Your task to perform on an android device: Go to accessibility settings Image 0: 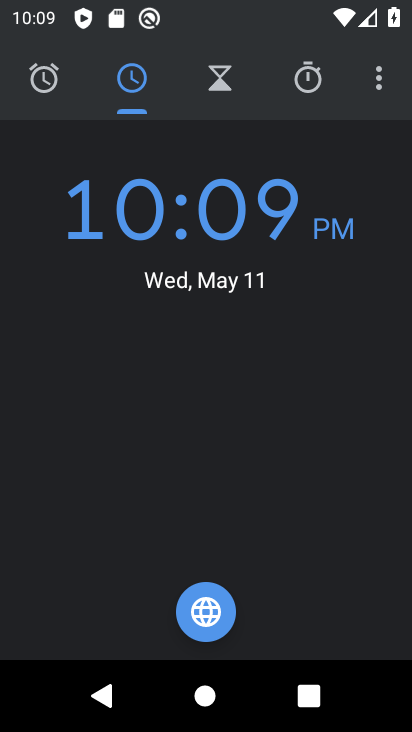
Step 0: press back button
Your task to perform on an android device: Go to accessibility settings Image 1: 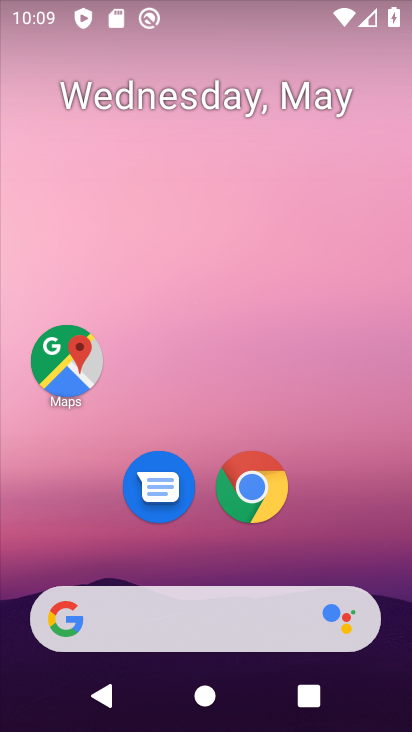
Step 1: drag from (379, 534) to (286, 16)
Your task to perform on an android device: Go to accessibility settings Image 2: 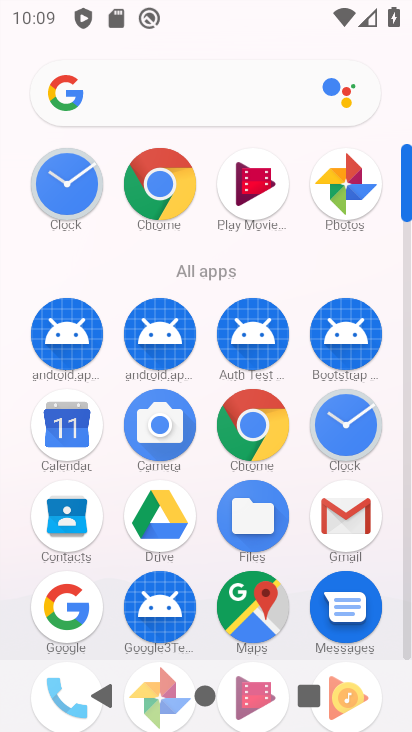
Step 2: drag from (17, 548) to (22, 245)
Your task to perform on an android device: Go to accessibility settings Image 3: 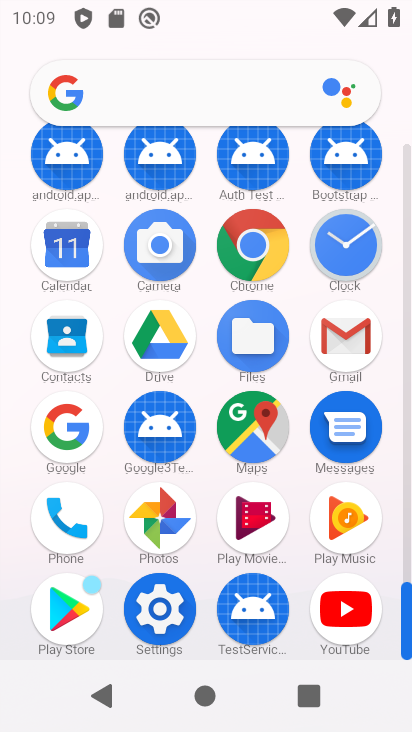
Step 3: click (162, 611)
Your task to perform on an android device: Go to accessibility settings Image 4: 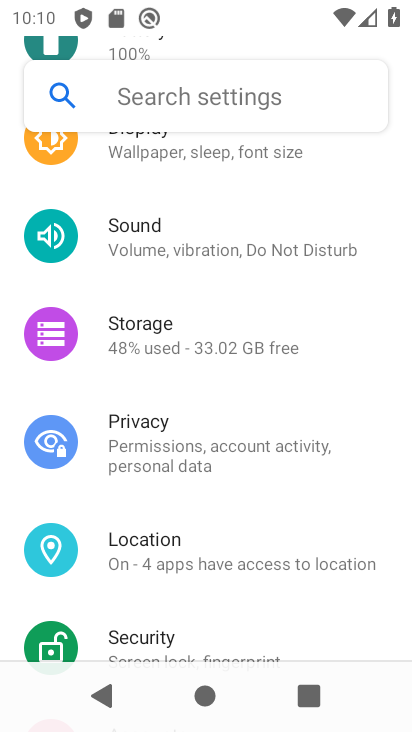
Step 4: drag from (320, 514) to (296, 168)
Your task to perform on an android device: Go to accessibility settings Image 5: 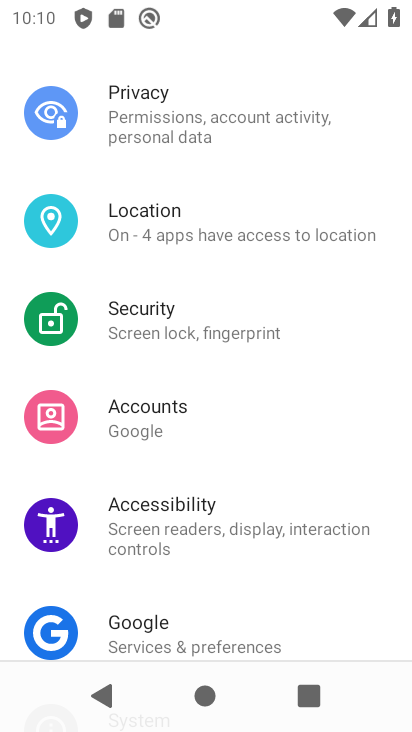
Step 5: drag from (273, 497) to (259, 116)
Your task to perform on an android device: Go to accessibility settings Image 6: 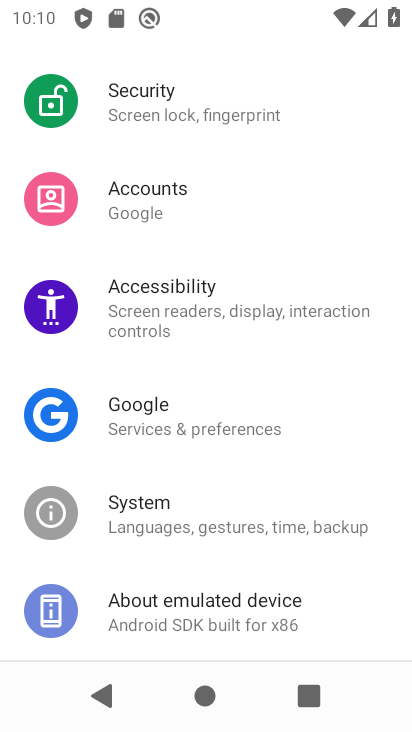
Step 6: click (246, 126)
Your task to perform on an android device: Go to accessibility settings Image 7: 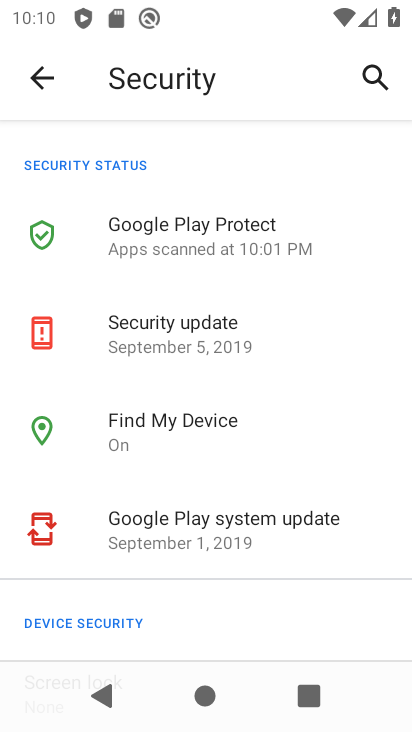
Step 7: drag from (316, 584) to (294, 182)
Your task to perform on an android device: Go to accessibility settings Image 8: 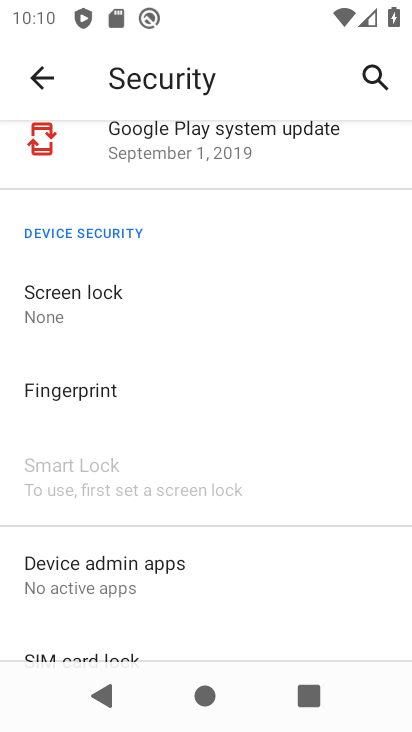
Step 8: drag from (266, 563) to (275, 204)
Your task to perform on an android device: Go to accessibility settings Image 9: 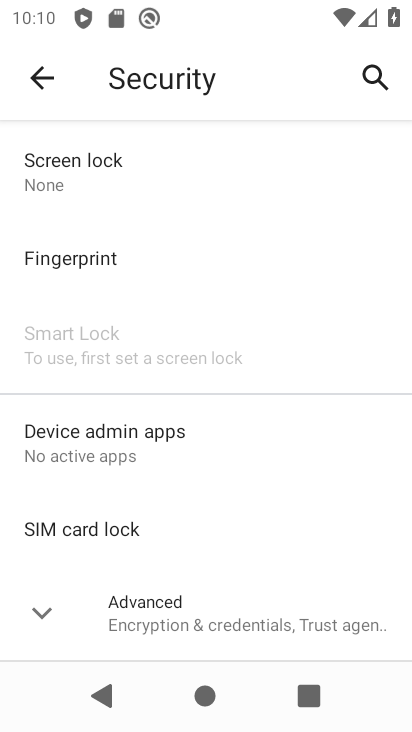
Step 9: click (41, 63)
Your task to perform on an android device: Go to accessibility settings Image 10: 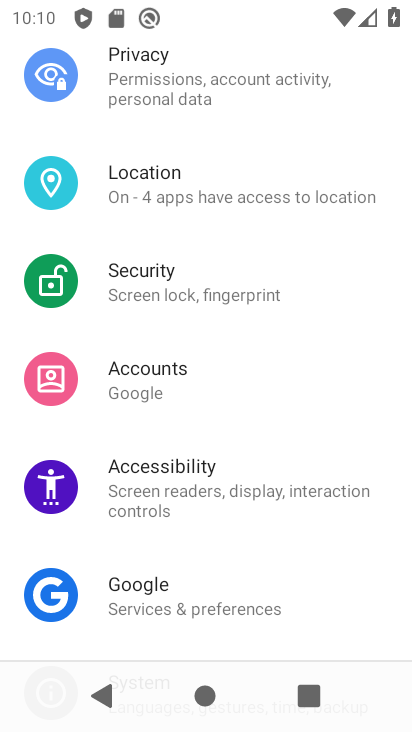
Step 10: click (202, 484)
Your task to perform on an android device: Go to accessibility settings Image 11: 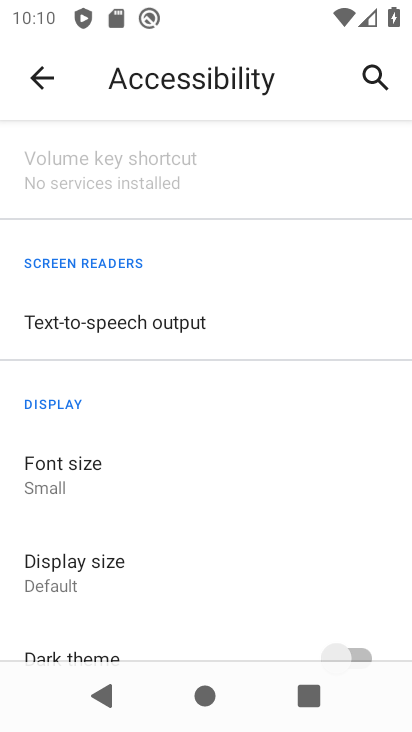
Step 11: task complete